Your task to perform on an android device: Open Google Maps and go to "Timeline" Image 0: 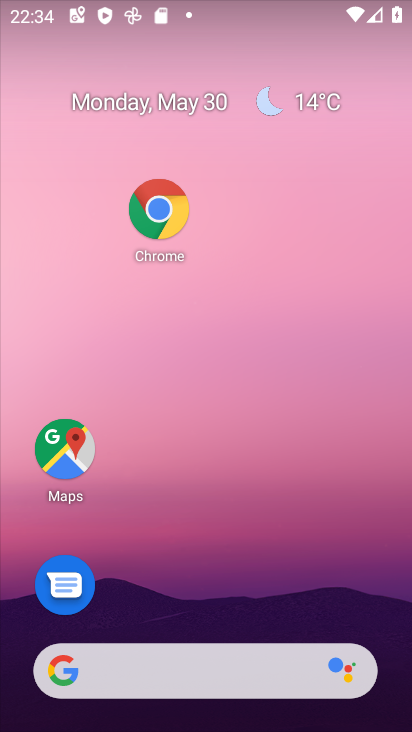
Step 0: drag from (206, 577) to (263, 178)
Your task to perform on an android device: Open Google Maps and go to "Timeline" Image 1: 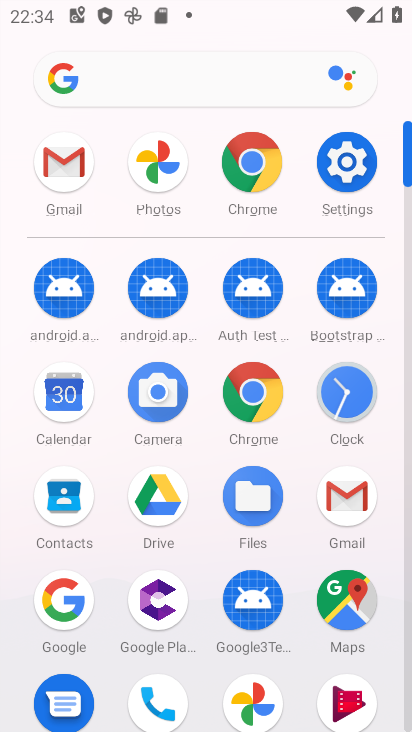
Step 1: drag from (209, 604) to (185, 145)
Your task to perform on an android device: Open Google Maps and go to "Timeline" Image 2: 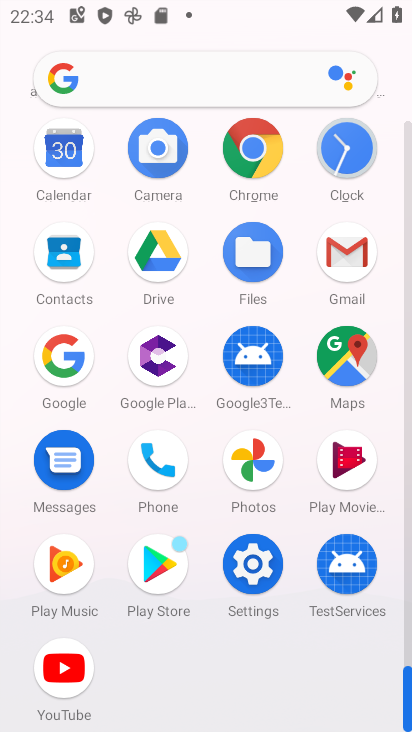
Step 2: click (355, 348)
Your task to perform on an android device: Open Google Maps and go to "Timeline" Image 3: 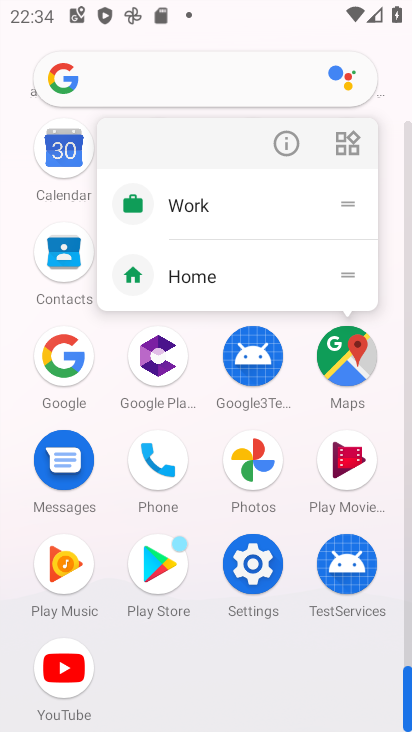
Step 3: click (276, 145)
Your task to perform on an android device: Open Google Maps and go to "Timeline" Image 4: 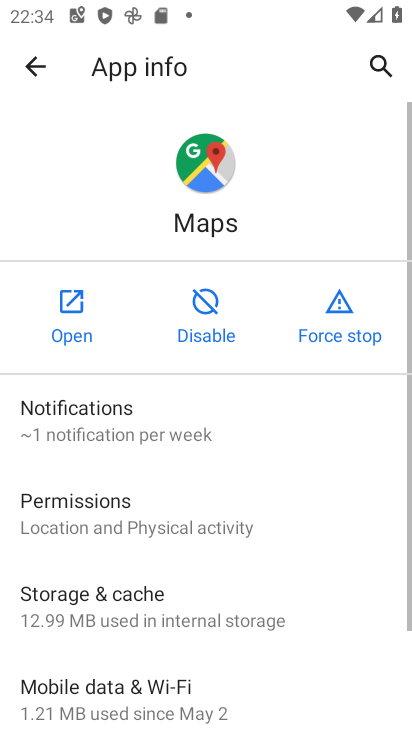
Step 4: click (72, 311)
Your task to perform on an android device: Open Google Maps and go to "Timeline" Image 5: 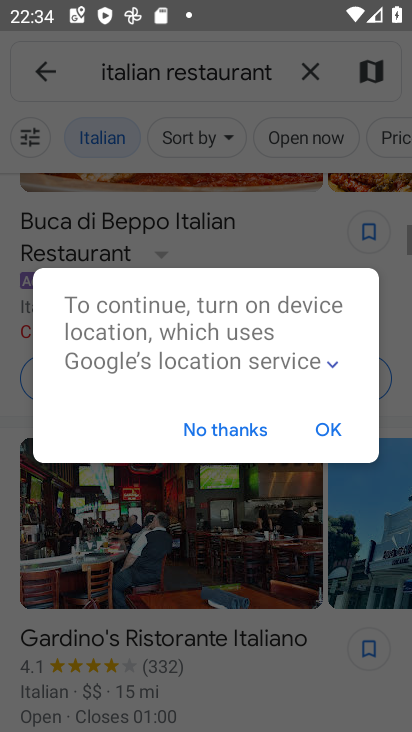
Step 5: click (315, 434)
Your task to perform on an android device: Open Google Maps and go to "Timeline" Image 6: 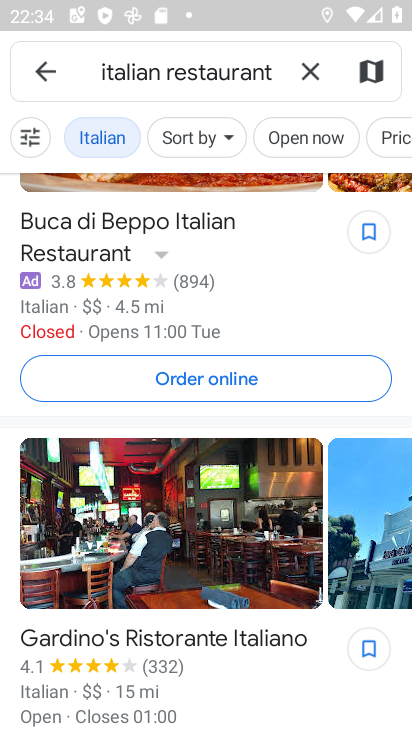
Step 6: click (50, 71)
Your task to perform on an android device: Open Google Maps and go to "Timeline" Image 7: 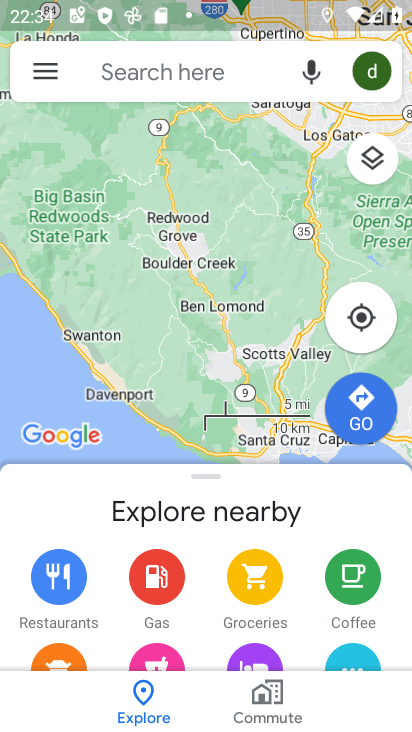
Step 7: click (46, 74)
Your task to perform on an android device: Open Google Maps and go to "Timeline" Image 8: 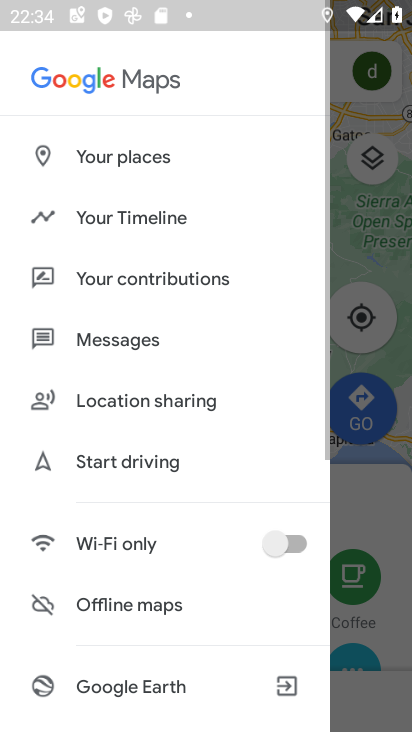
Step 8: click (167, 221)
Your task to perform on an android device: Open Google Maps and go to "Timeline" Image 9: 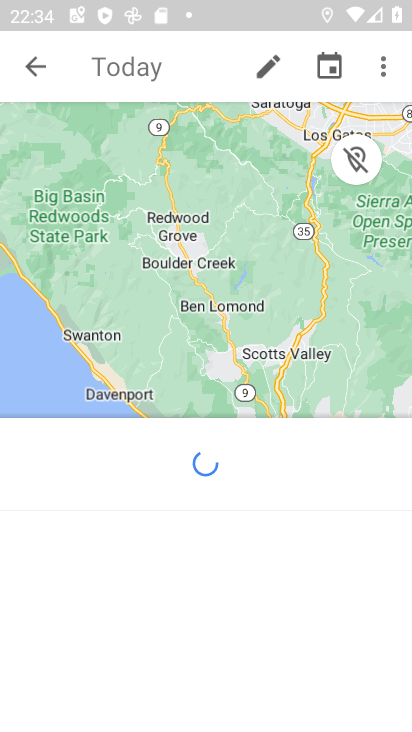
Step 9: click (116, 220)
Your task to perform on an android device: Open Google Maps and go to "Timeline" Image 10: 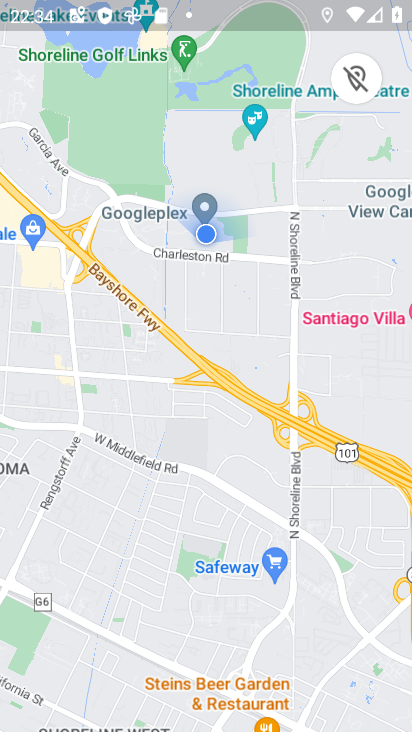
Step 10: task complete